Your task to perform on an android device: check battery use Image 0: 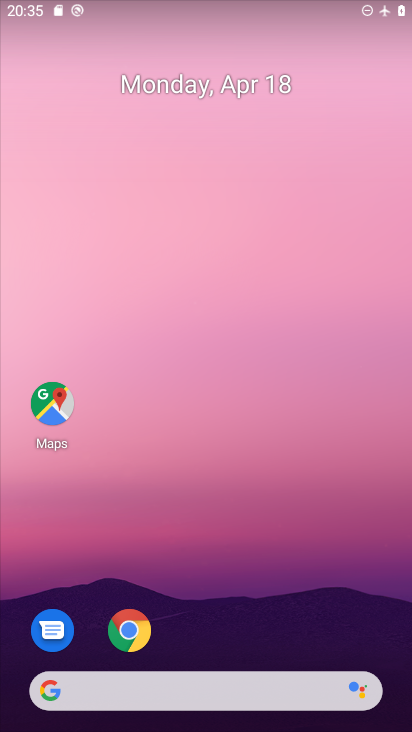
Step 0: drag from (214, 626) to (315, 11)
Your task to perform on an android device: check battery use Image 1: 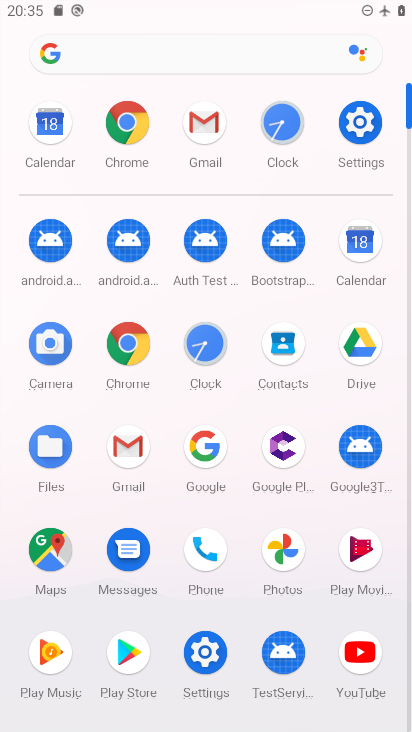
Step 1: click (364, 141)
Your task to perform on an android device: check battery use Image 2: 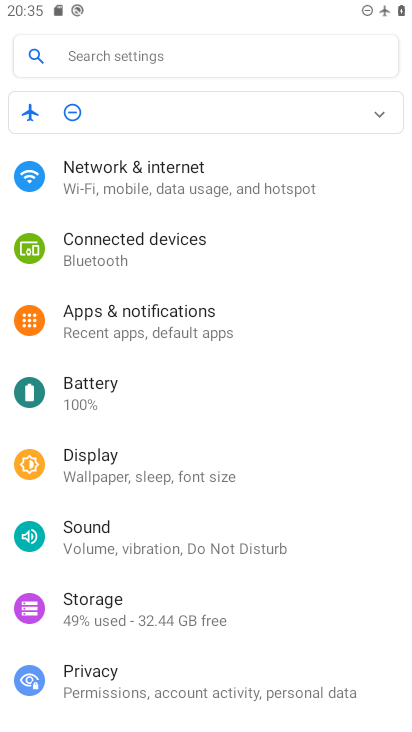
Step 2: click (117, 400)
Your task to perform on an android device: check battery use Image 3: 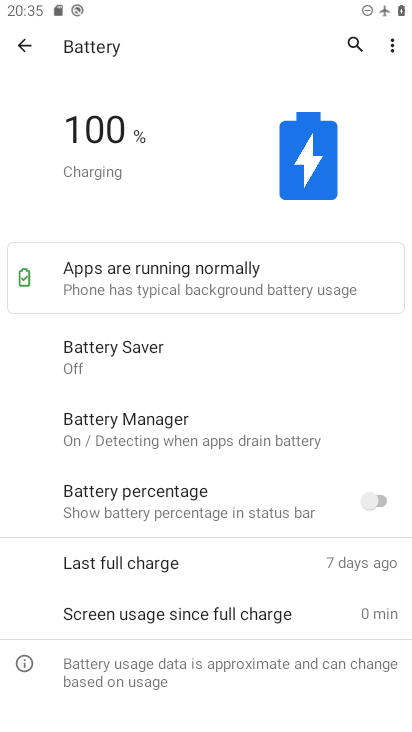
Step 3: click (402, 42)
Your task to perform on an android device: check battery use Image 4: 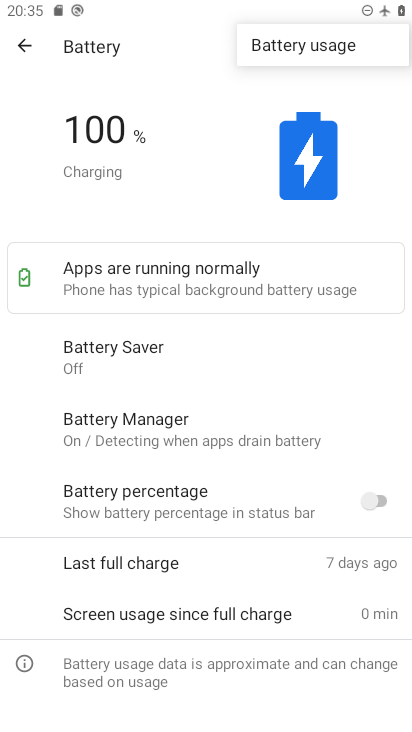
Step 4: click (322, 45)
Your task to perform on an android device: check battery use Image 5: 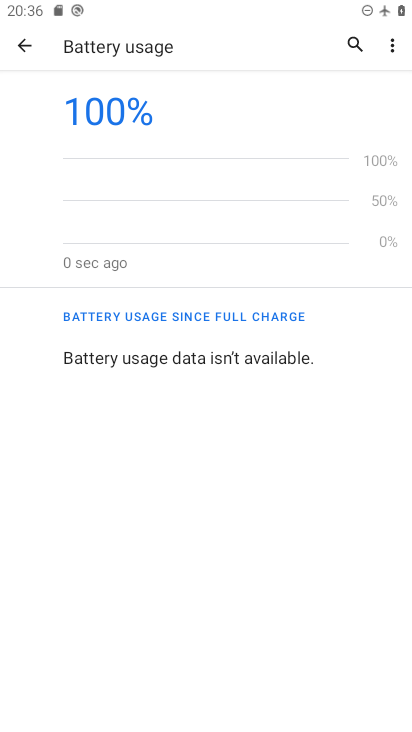
Step 5: task complete